Your task to perform on an android device: Go to Yahoo.com Image 0: 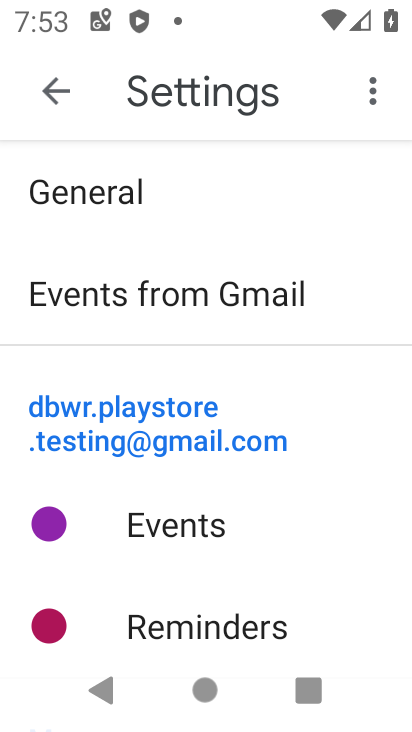
Step 0: press home button
Your task to perform on an android device: Go to Yahoo.com Image 1: 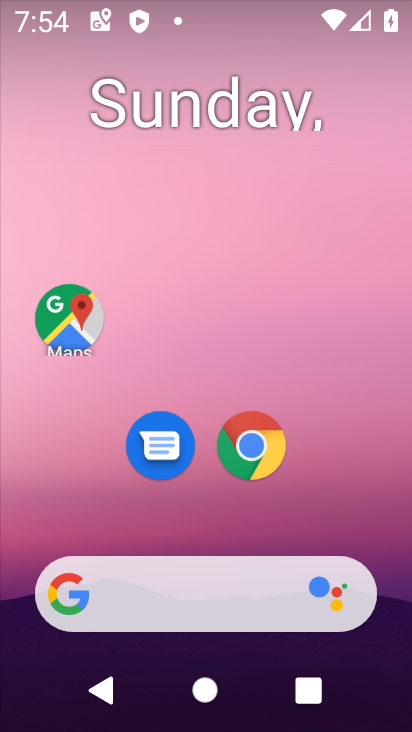
Step 1: click (246, 444)
Your task to perform on an android device: Go to Yahoo.com Image 2: 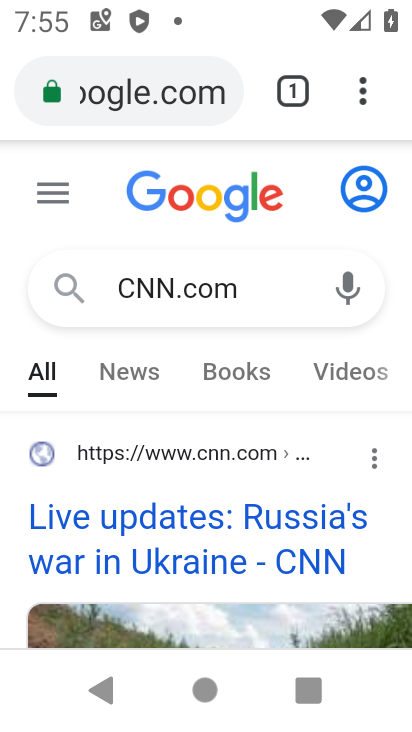
Step 2: click (276, 96)
Your task to perform on an android device: Go to Yahoo.com Image 3: 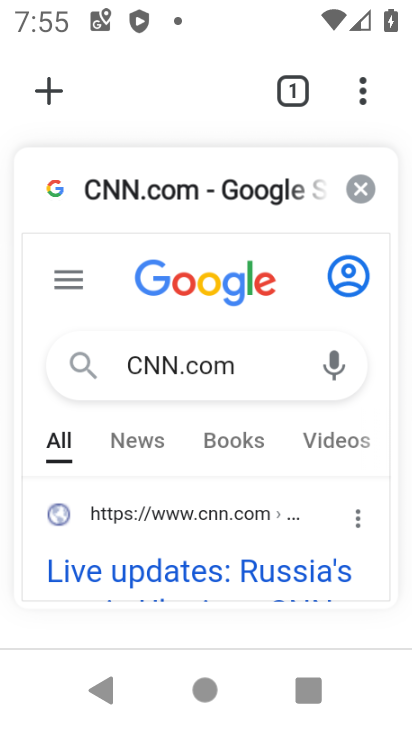
Step 3: click (363, 190)
Your task to perform on an android device: Go to Yahoo.com Image 4: 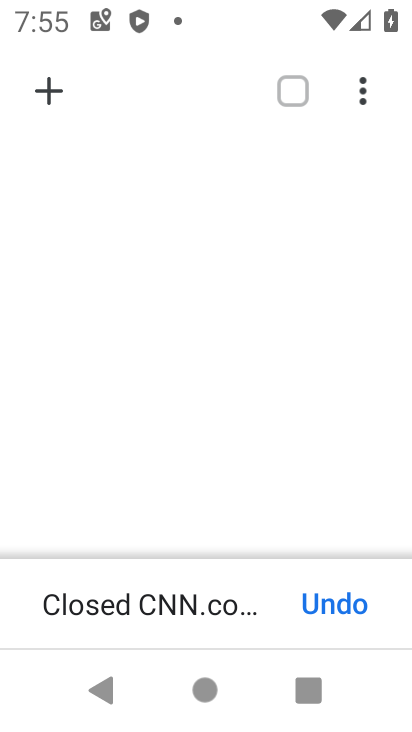
Step 4: click (39, 90)
Your task to perform on an android device: Go to Yahoo.com Image 5: 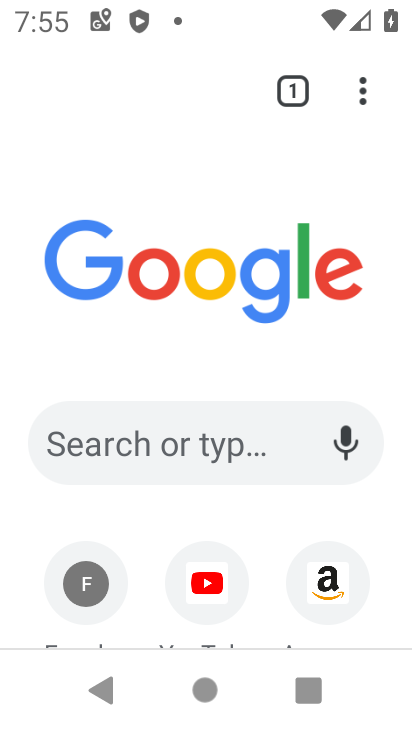
Step 5: drag from (15, 465) to (169, 92)
Your task to perform on an android device: Go to Yahoo.com Image 6: 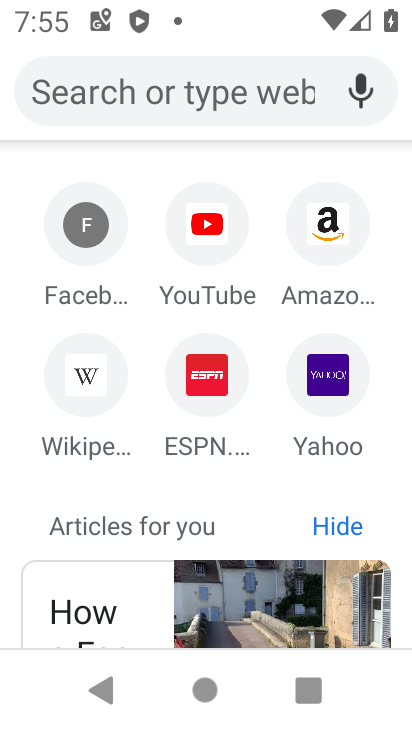
Step 6: click (318, 387)
Your task to perform on an android device: Go to Yahoo.com Image 7: 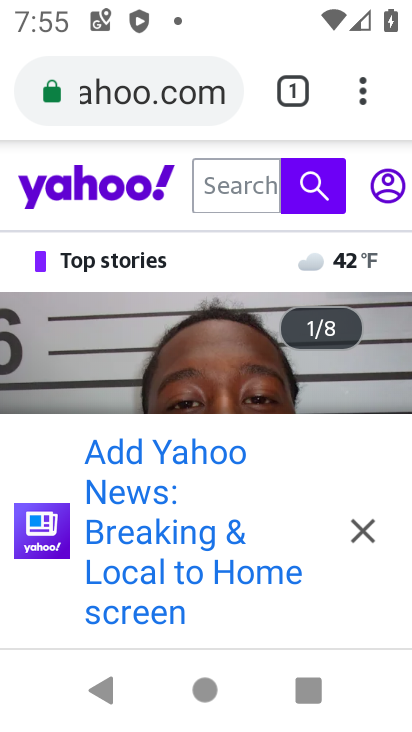
Step 7: task complete